Your task to perform on an android device: turn on translation in the chrome app Image 0: 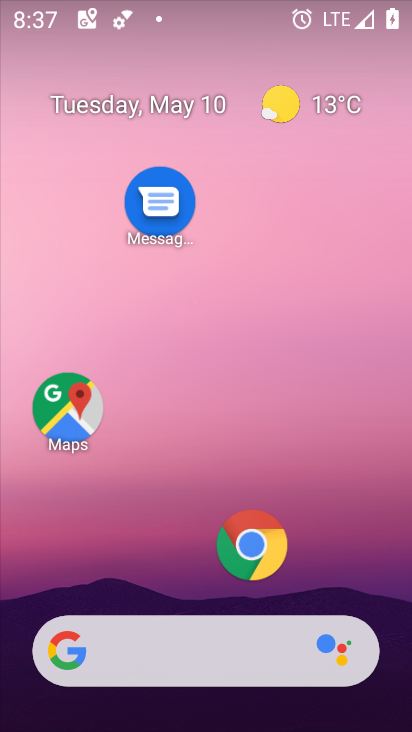
Step 0: click (251, 539)
Your task to perform on an android device: turn on translation in the chrome app Image 1: 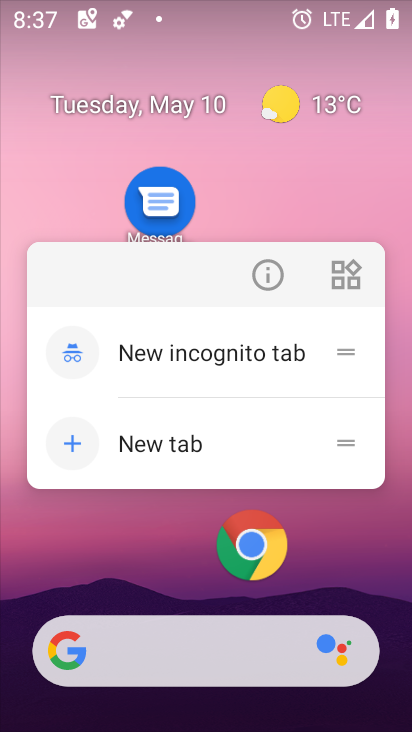
Step 1: click (250, 540)
Your task to perform on an android device: turn on translation in the chrome app Image 2: 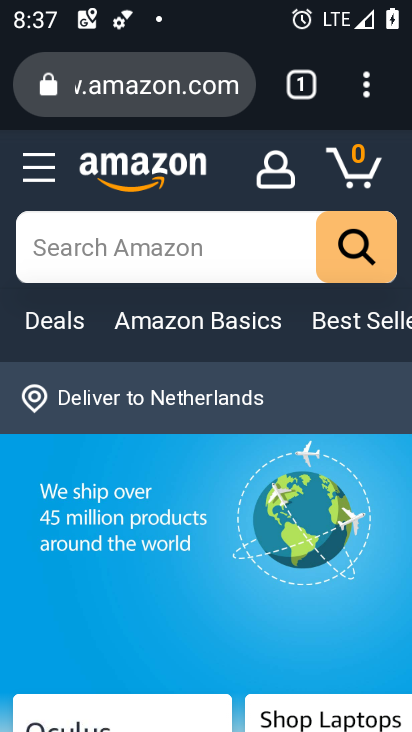
Step 2: click (363, 78)
Your task to perform on an android device: turn on translation in the chrome app Image 3: 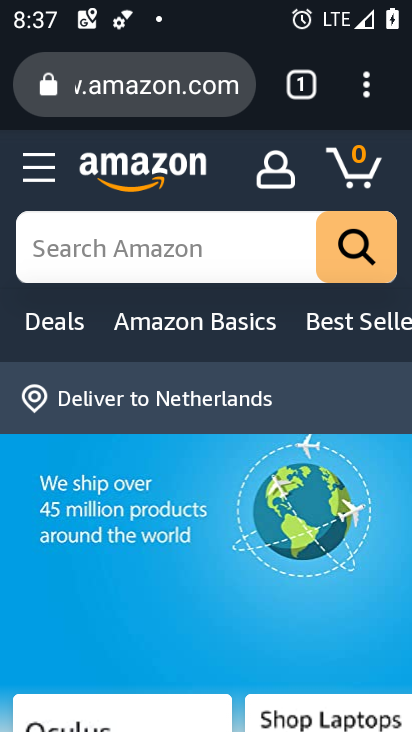
Step 3: click (368, 80)
Your task to perform on an android device: turn on translation in the chrome app Image 4: 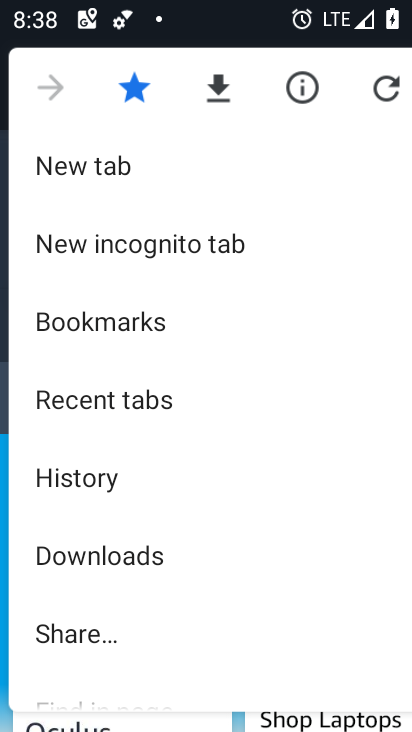
Step 4: drag from (176, 607) to (191, 156)
Your task to perform on an android device: turn on translation in the chrome app Image 5: 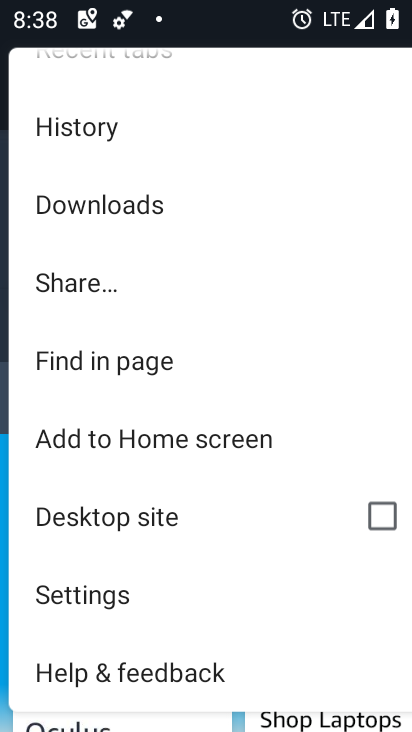
Step 5: click (138, 592)
Your task to perform on an android device: turn on translation in the chrome app Image 6: 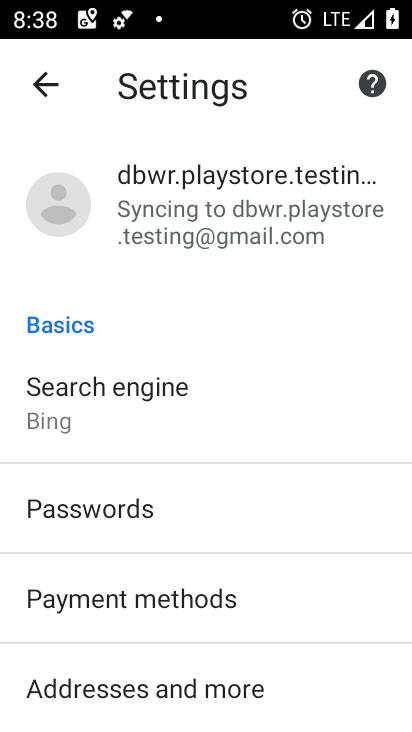
Step 6: drag from (271, 667) to (302, 213)
Your task to perform on an android device: turn on translation in the chrome app Image 7: 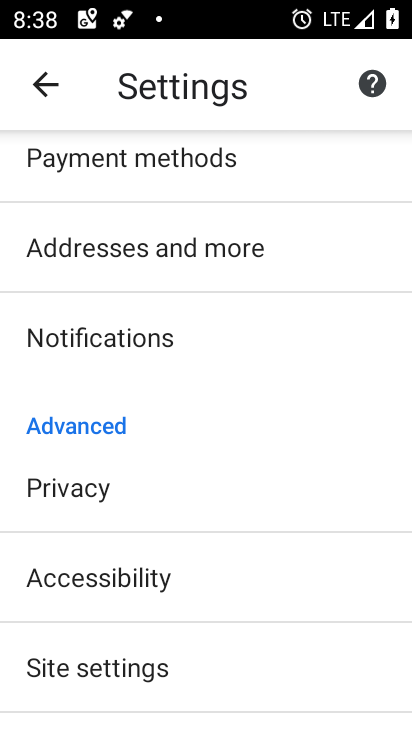
Step 7: drag from (209, 658) to (255, 226)
Your task to perform on an android device: turn on translation in the chrome app Image 8: 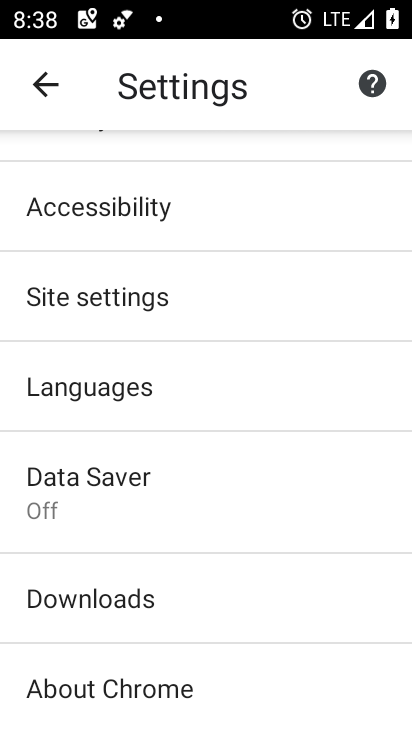
Step 8: click (156, 386)
Your task to perform on an android device: turn on translation in the chrome app Image 9: 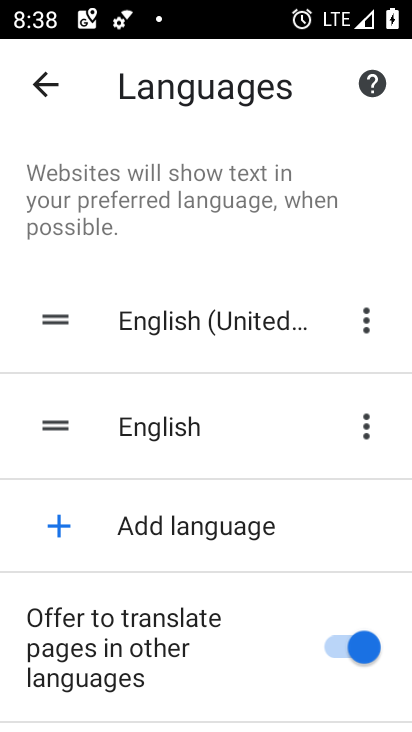
Step 9: task complete